Your task to perform on an android device: Go to Google maps Image 0: 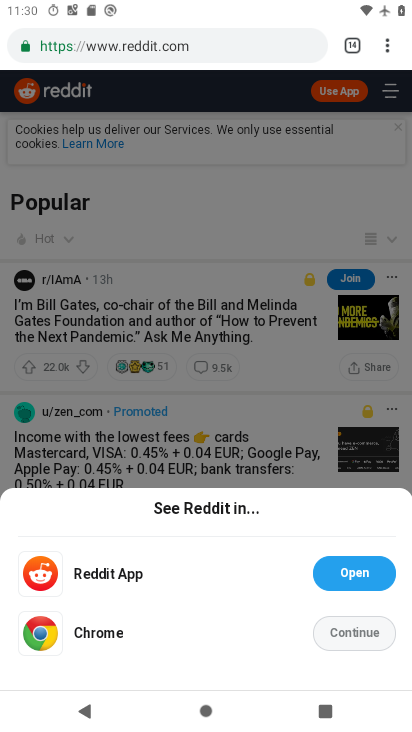
Step 0: press home button
Your task to perform on an android device: Go to Google maps Image 1: 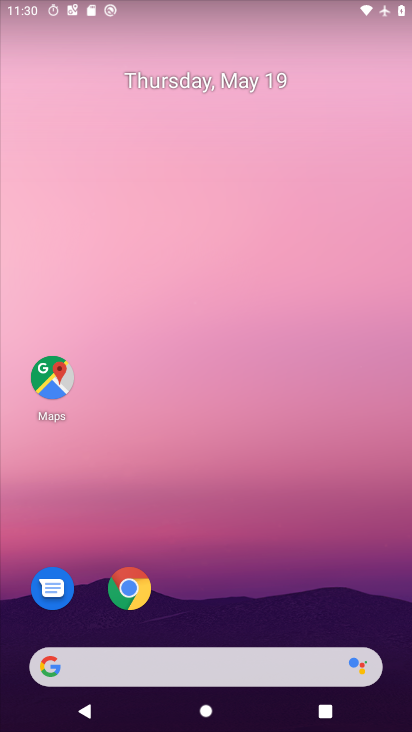
Step 1: click (52, 379)
Your task to perform on an android device: Go to Google maps Image 2: 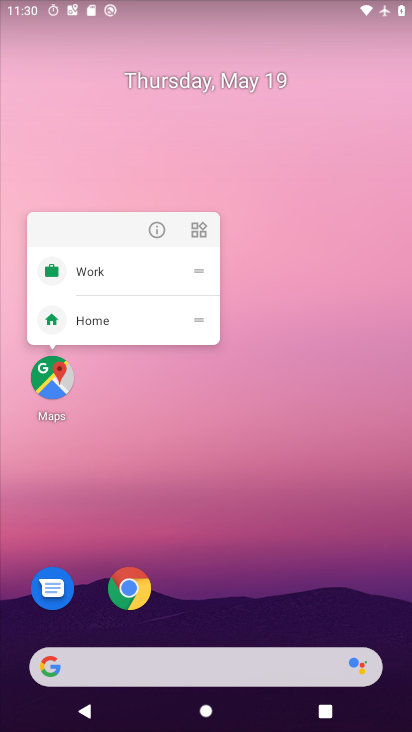
Step 2: click (52, 379)
Your task to perform on an android device: Go to Google maps Image 3: 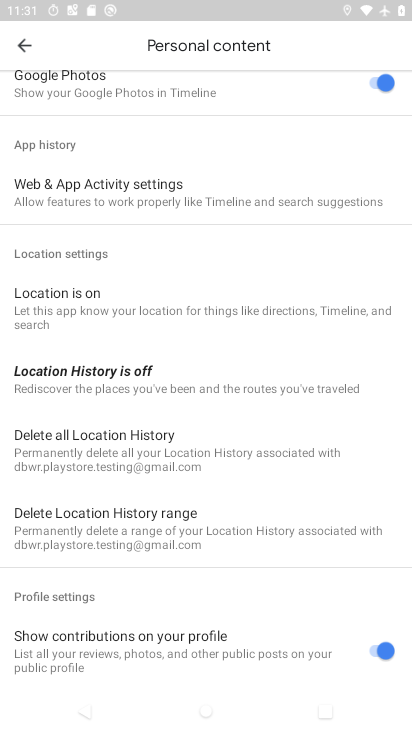
Step 3: click (19, 44)
Your task to perform on an android device: Go to Google maps Image 4: 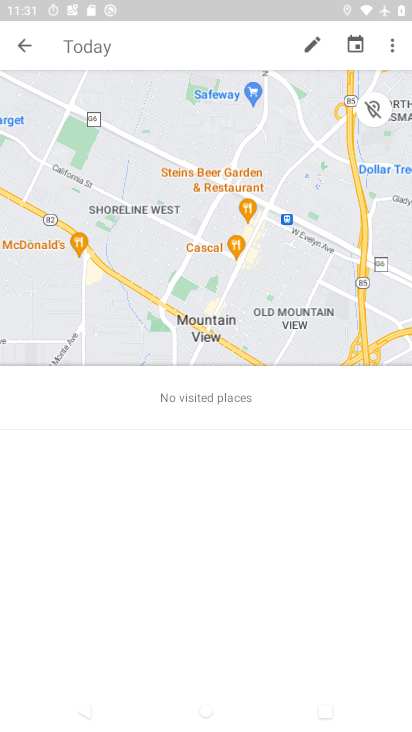
Step 4: task complete